Your task to perform on an android device: Open Wikipedia Image 0: 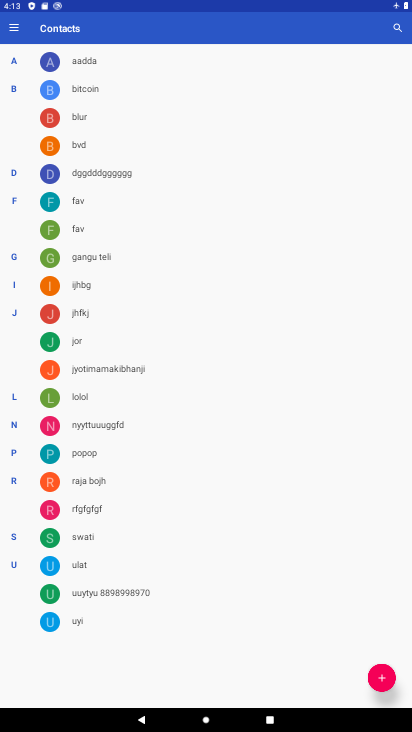
Step 0: press home button
Your task to perform on an android device: Open Wikipedia Image 1: 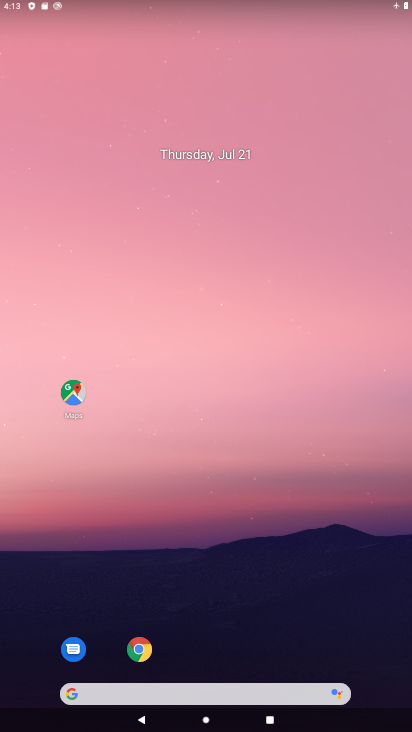
Step 1: click (132, 646)
Your task to perform on an android device: Open Wikipedia Image 2: 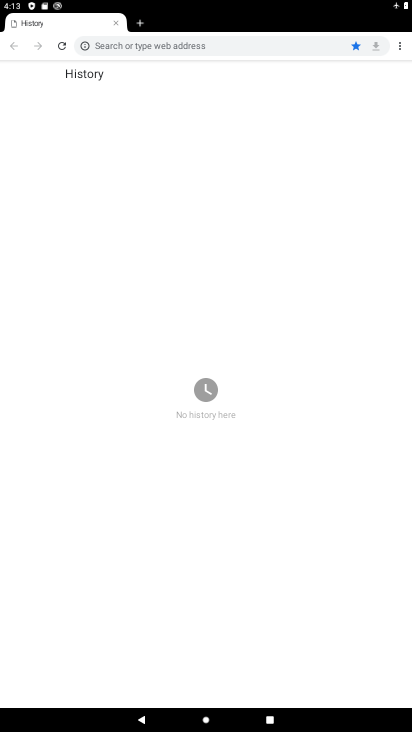
Step 2: click (141, 26)
Your task to perform on an android device: Open Wikipedia Image 3: 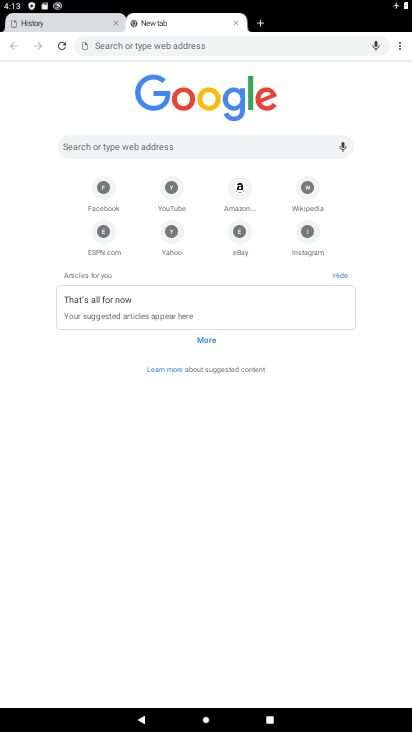
Step 3: click (303, 193)
Your task to perform on an android device: Open Wikipedia Image 4: 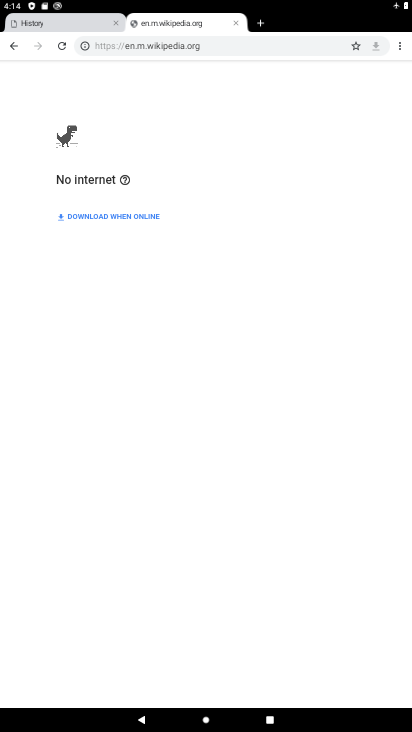
Step 4: task complete